Your task to perform on an android device: Clear all items from cart on walmart.com. Add dell xps to the cart on walmart.com Image 0: 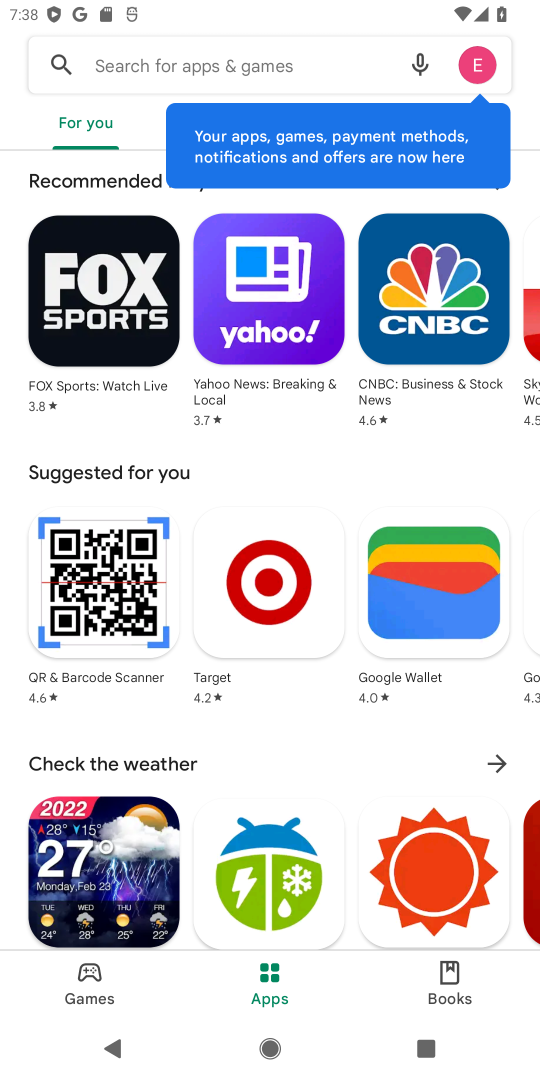
Step 0: press home button
Your task to perform on an android device: Clear all items from cart on walmart.com. Add dell xps to the cart on walmart.com Image 1: 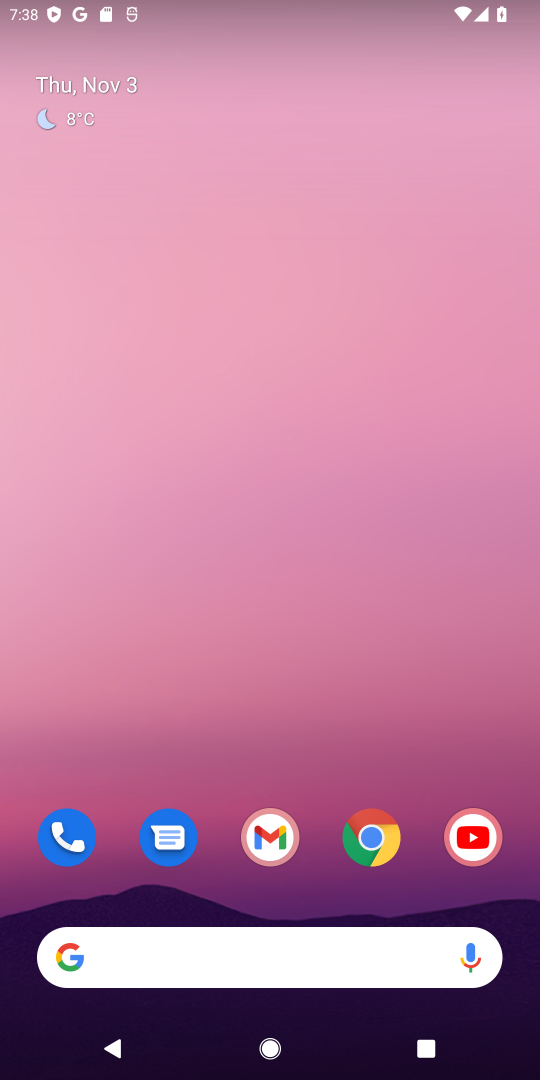
Step 1: click (374, 830)
Your task to perform on an android device: Clear all items from cart on walmart.com. Add dell xps to the cart on walmart.com Image 2: 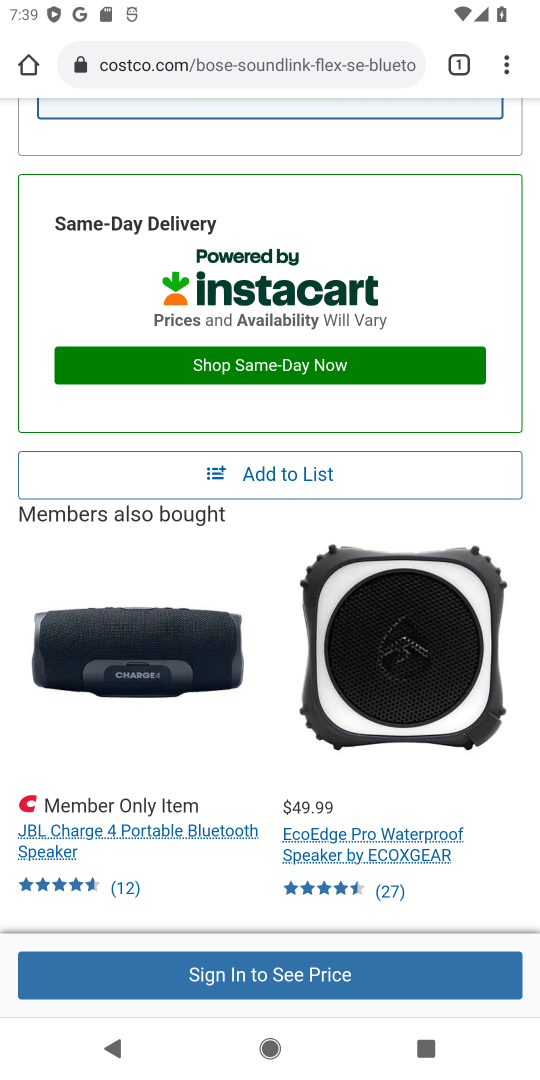
Step 2: click (294, 60)
Your task to perform on an android device: Clear all items from cart on walmart.com. Add dell xps to the cart on walmart.com Image 3: 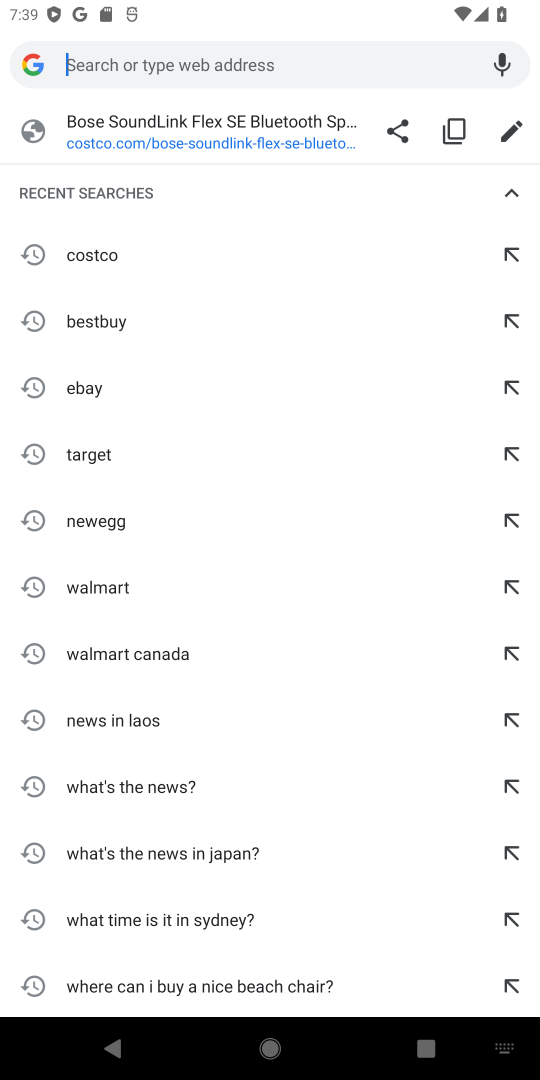
Step 3: click (116, 590)
Your task to perform on an android device: Clear all items from cart on walmart.com. Add dell xps to the cart on walmart.com Image 4: 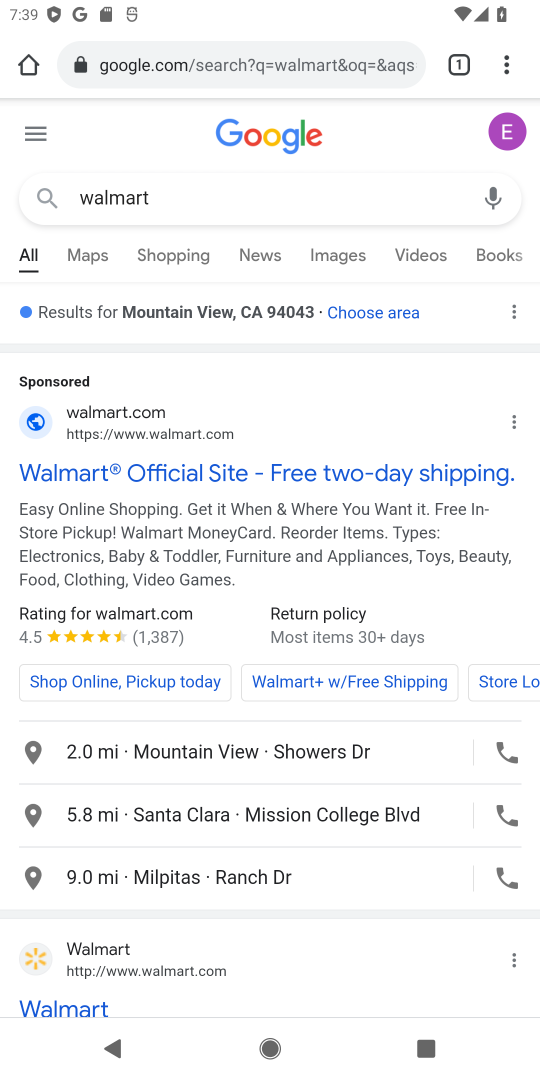
Step 4: click (195, 469)
Your task to perform on an android device: Clear all items from cart on walmart.com. Add dell xps to the cart on walmart.com Image 5: 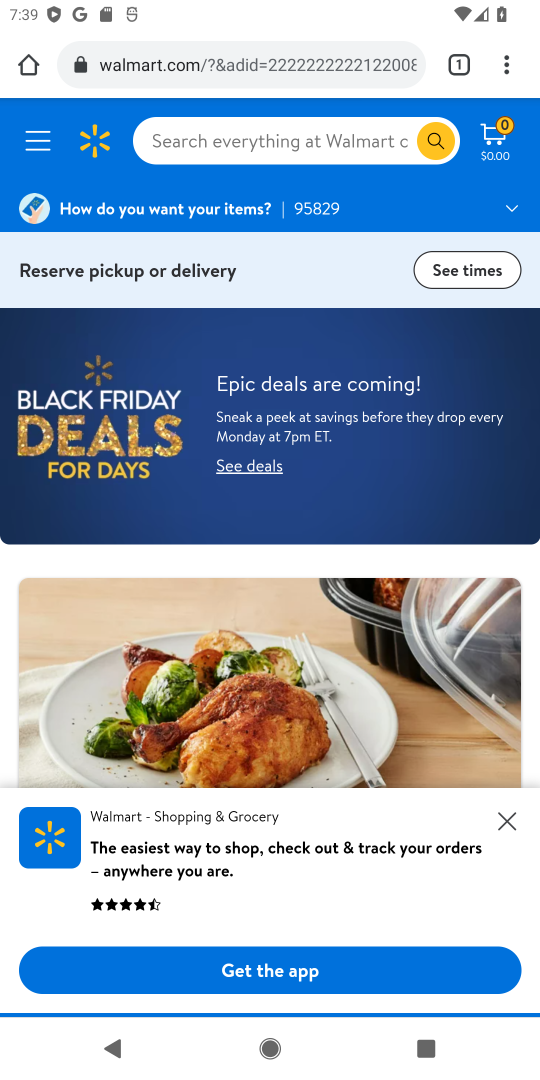
Step 5: click (501, 812)
Your task to perform on an android device: Clear all items from cart on walmart.com. Add dell xps to the cart on walmart.com Image 6: 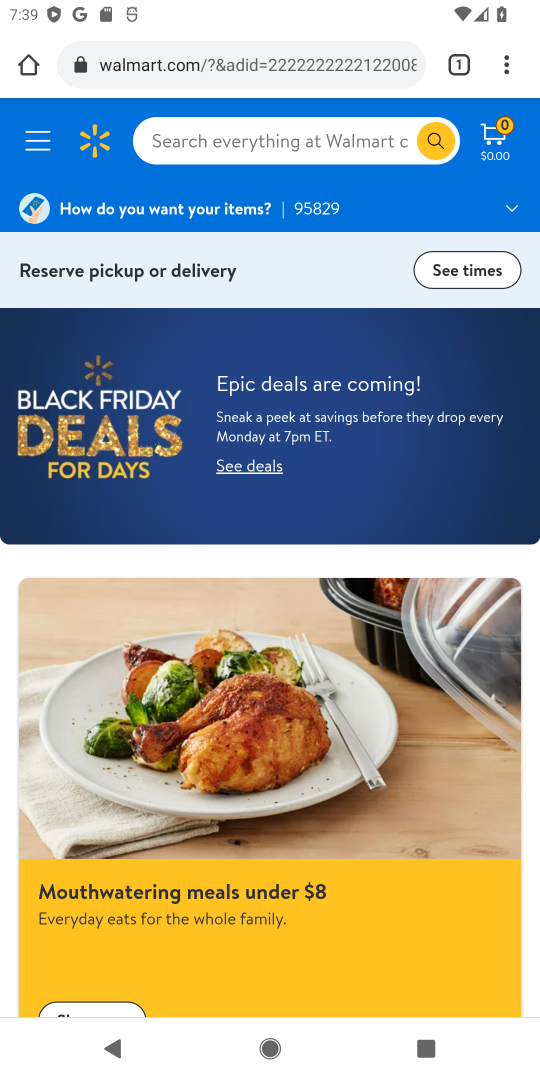
Step 6: click (309, 142)
Your task to perform on an android device: Clear all items from cart on walmart.com. Add dell xps to the cart on walmart.com Image 7: 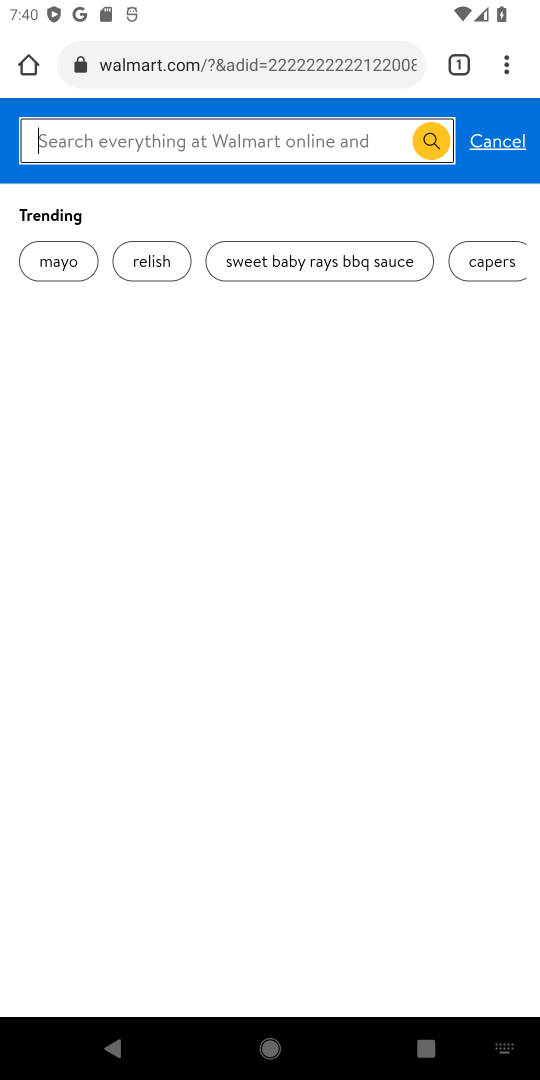
Step 7: type "dell xps"
Your task to perform on an android device: Clear all items from cart on walmart.com. Add dell xps to the cart on walmart.com Image 8: 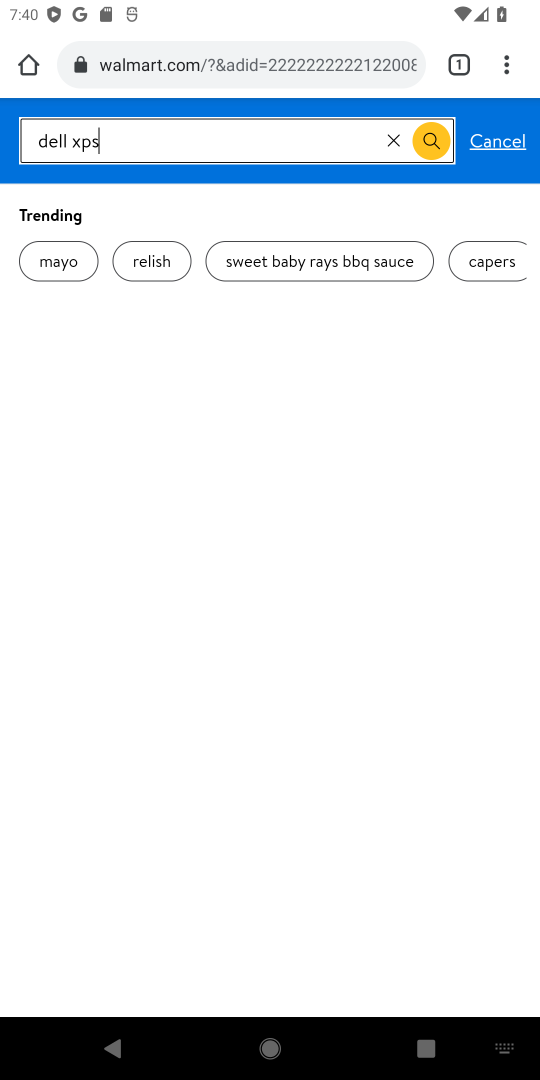
Step 8: press enter
Your task to perform on an android device: Clear all items from cart on walmart.com. Add dell xps to the cart on walmart.com Image 9: 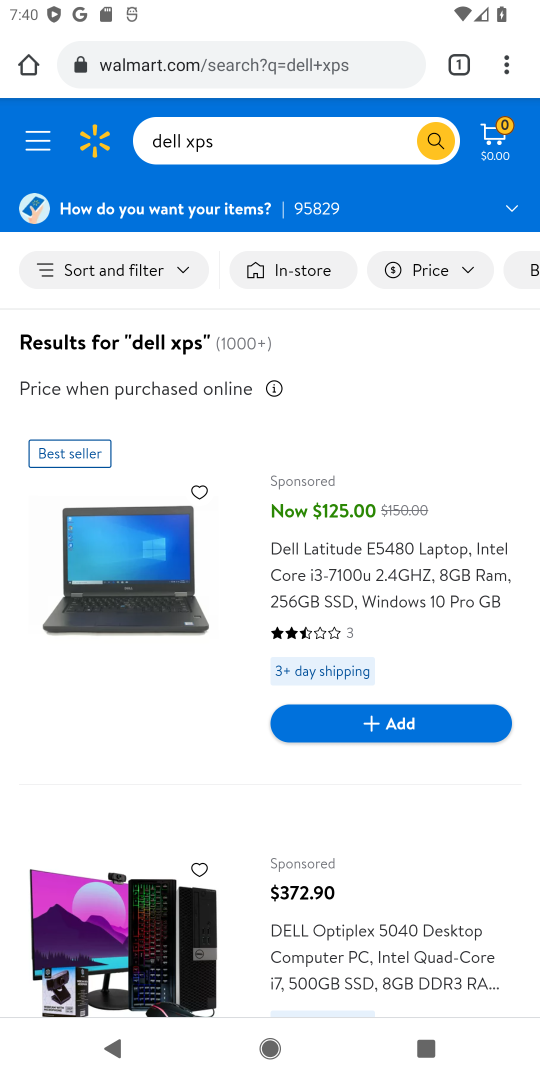
Step 9: click (404, 718)
Your task to perform on an android device: Clear all items from cart on walmart.com. Add dell xps to the cart on walmart.com Image 10: 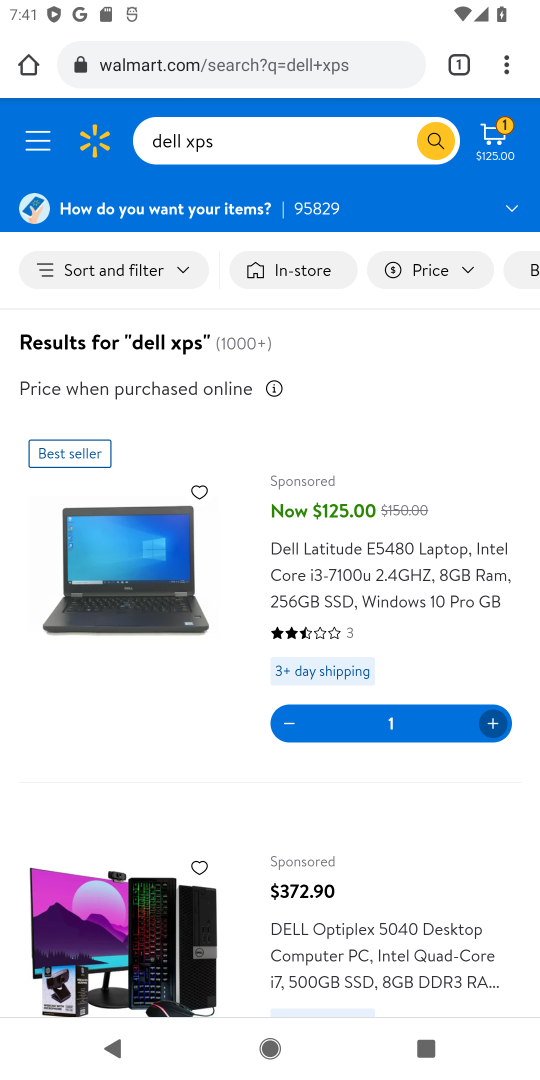
Step 10: task complete